Your task to perform on an android device: turn on sleep mode Image 0: 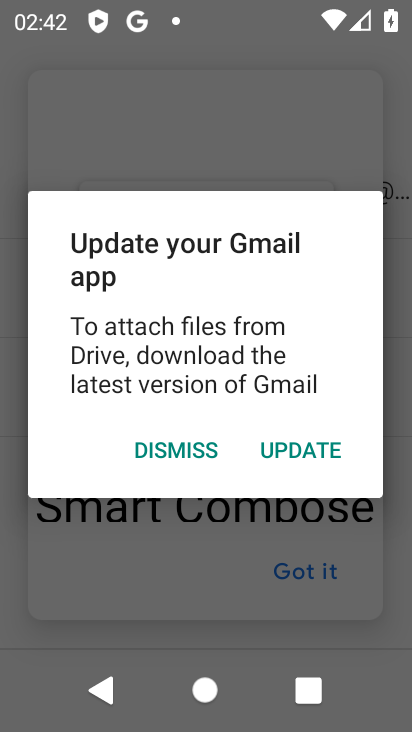
Step 0: press home button
Your task to perform on an android device: turn on sleep mode Image 1: 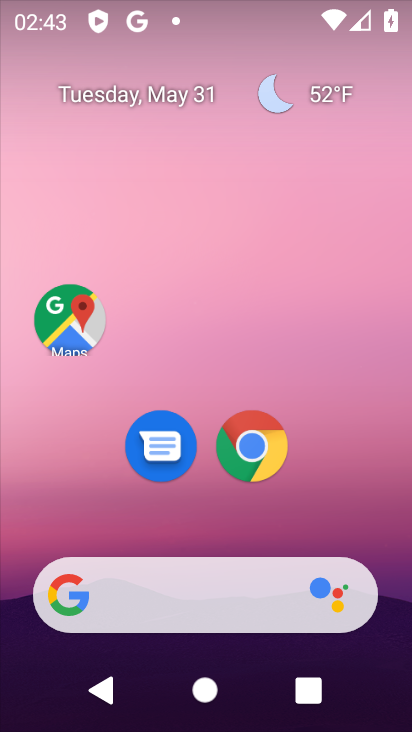
Step 1: drag from (338, 512) to (262, 141)
Your task to perform on an android device: turn on sleep mode Image 2: 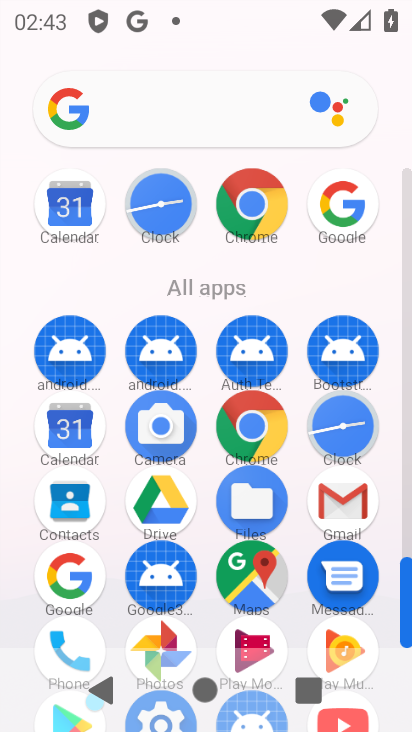
Step 2: drag from (110, 605) to (113, 268)
Your task to perform on an android device: turn on sleep mode Image 3: 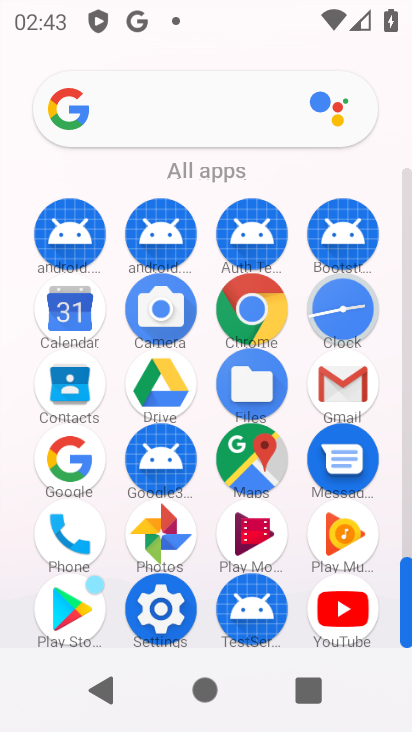
Step 3: click (164, 606)
Your task to perform on an android device: turn on sleep mode Image 4: 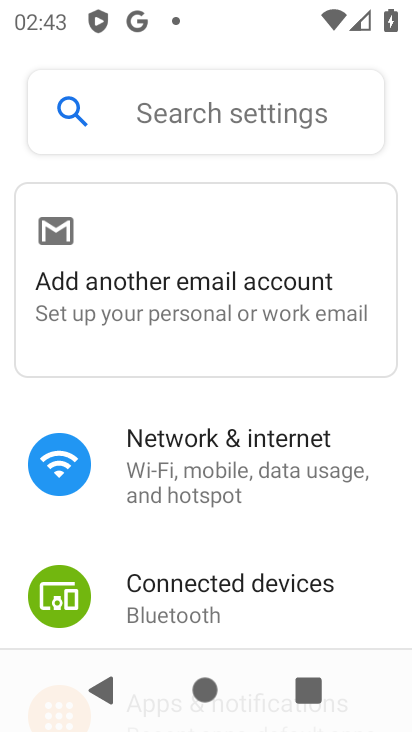
Step 4: drag from (241, 520) to (263, 435)
Your task to perform on an android device: turn on sleep mode Image 5: 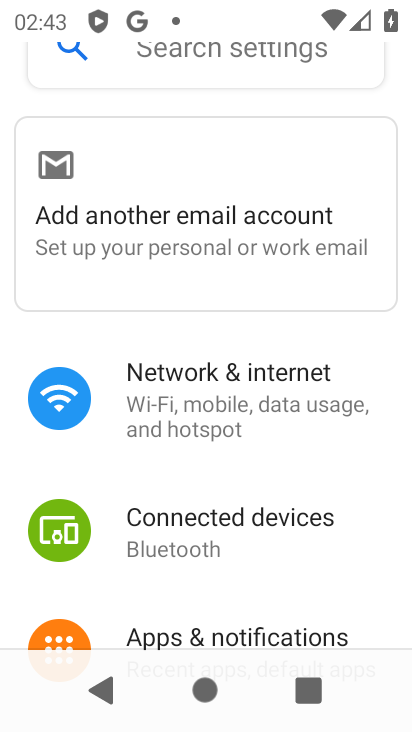
Step 5: drag from (158, 497) to (208, 325)
Your task to perform on an android device: turn on sleep mode Image 6: 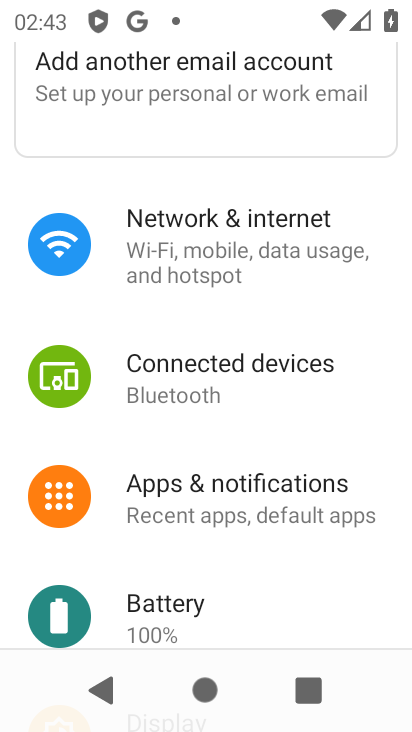
Step 6: drag from (180, 544) to (190, 410)
Your task to perform on an android device: turn on sleep mode Image 7: 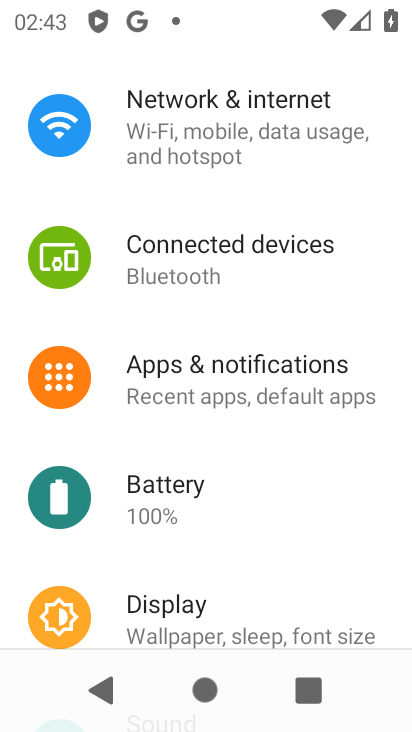
Step 7: drag from (173, 579) to (164, 405)
Your task to perform on an android device: turn on sleep mode Image 8: 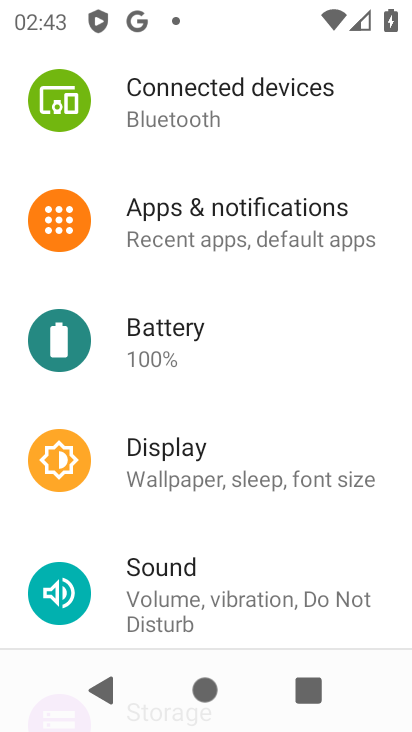
Step 8: click (207, 481)
Your task to perform on an android device: turn on sleep mode Image 9: 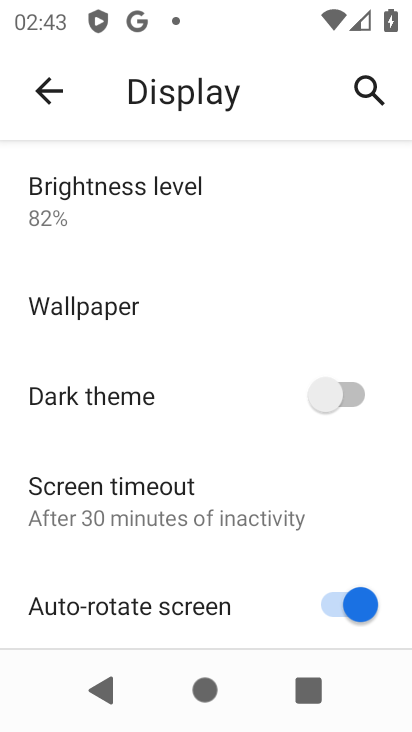
Step 9: drag from (116, 415) to (174, 253)
Your task to perform on an android device: turn on sleep mode Image 10: 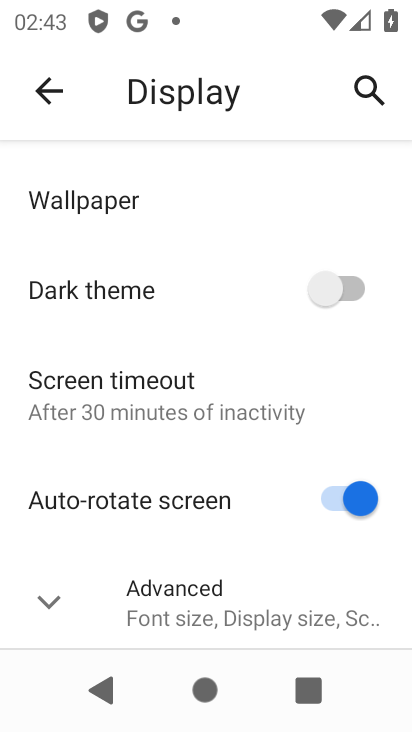
Step 10: drag from (99, 439) to (132, 283)
Your task to perform on an android device: turn on sleep mode Image 11: 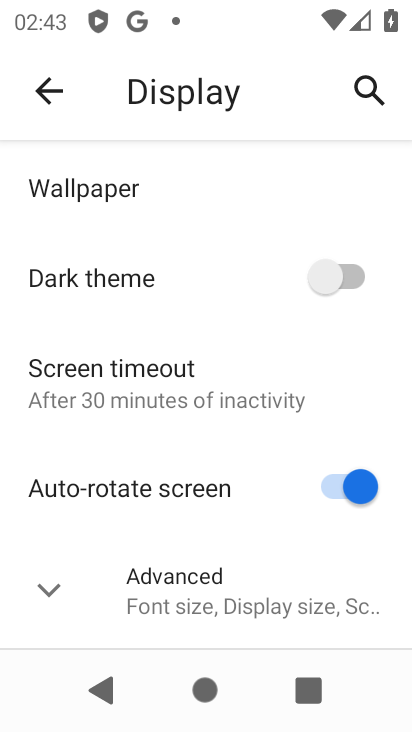
Step 11: click (189, 380)
Your task to perform on an android device: turn on sleep mode Image 12: 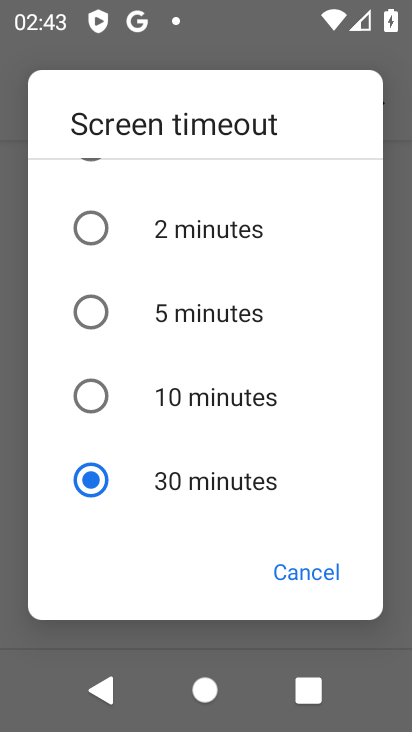
Step 12: drag from (195, 436) to (216, 276)
Your task to perform on an android device: turn on sleep mode Image 13: 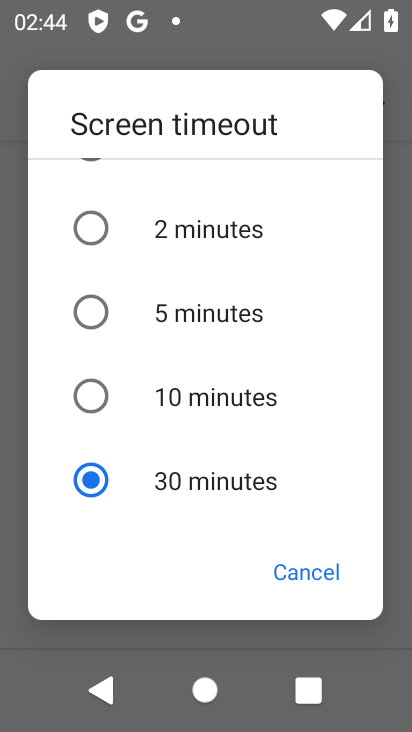
Step 13: click (314, 566)
Your task to perform on an android device: turn on sleep mode Image 14: 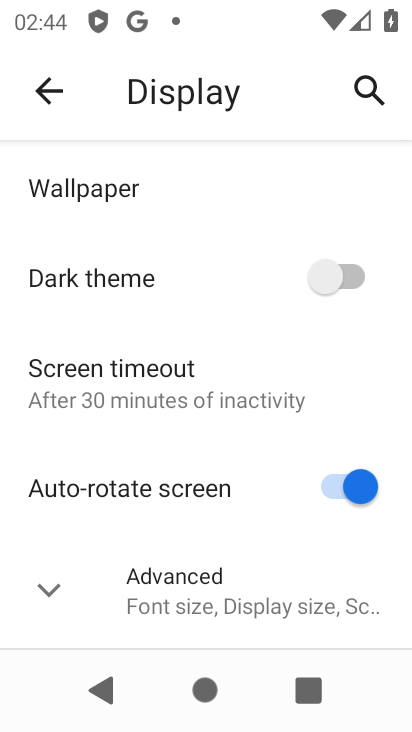
Step 14: click (202, 581)
Your task to perform on an android device: turn on sleep mode Image 15: 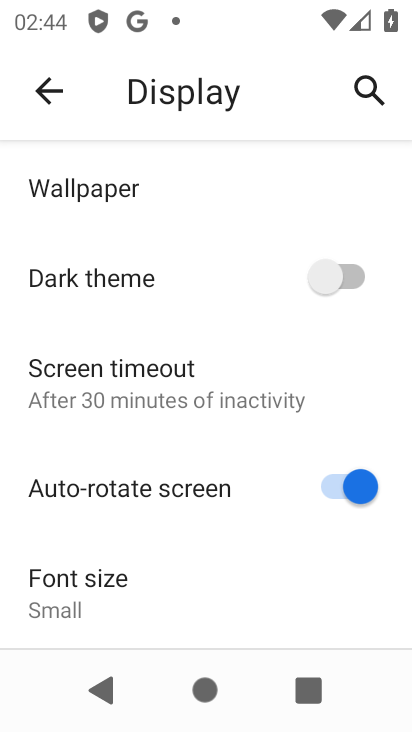
Step 15: task complete